Your task to perform on an android device: Go to Reddit.com Image 0: 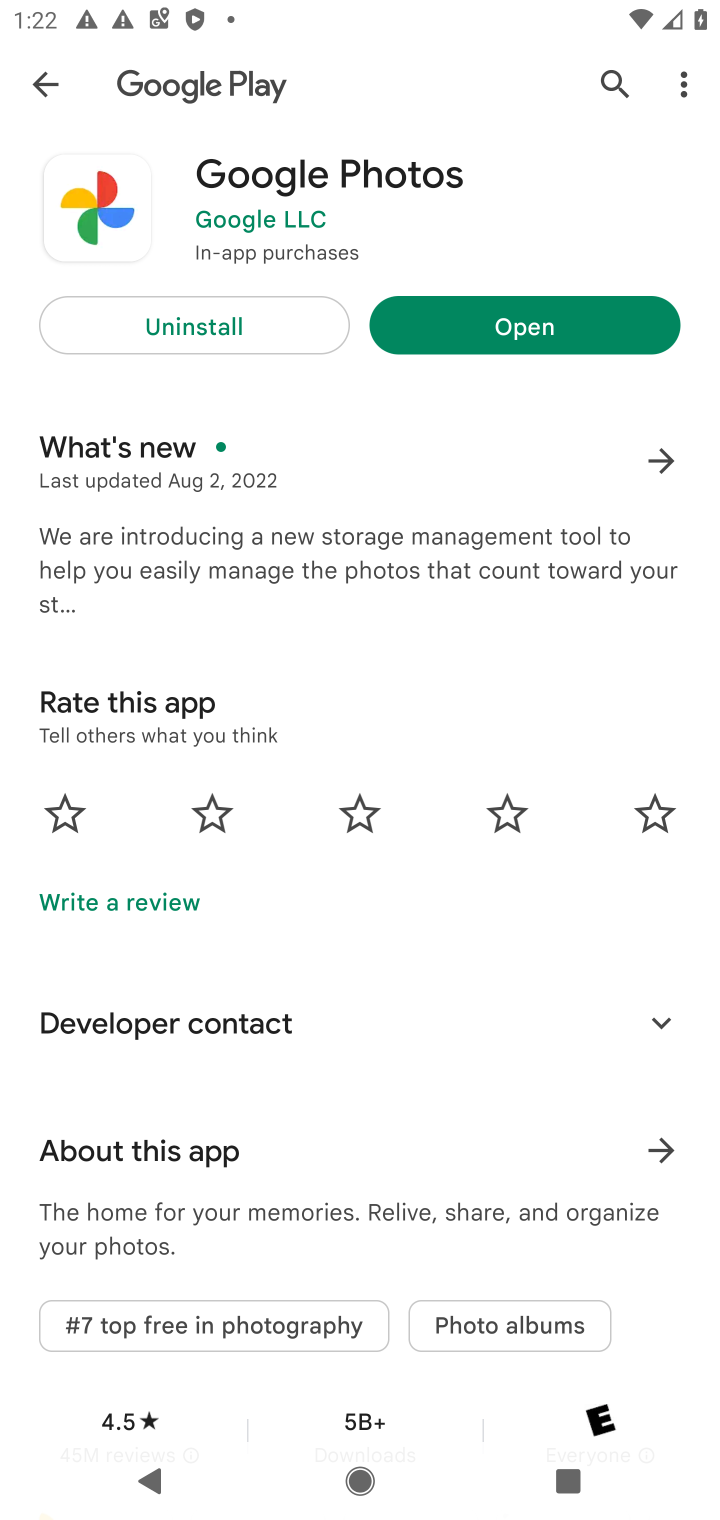
Step 0: press home button
Your task to perform on an android device: Go to Reddit.com Image 1: 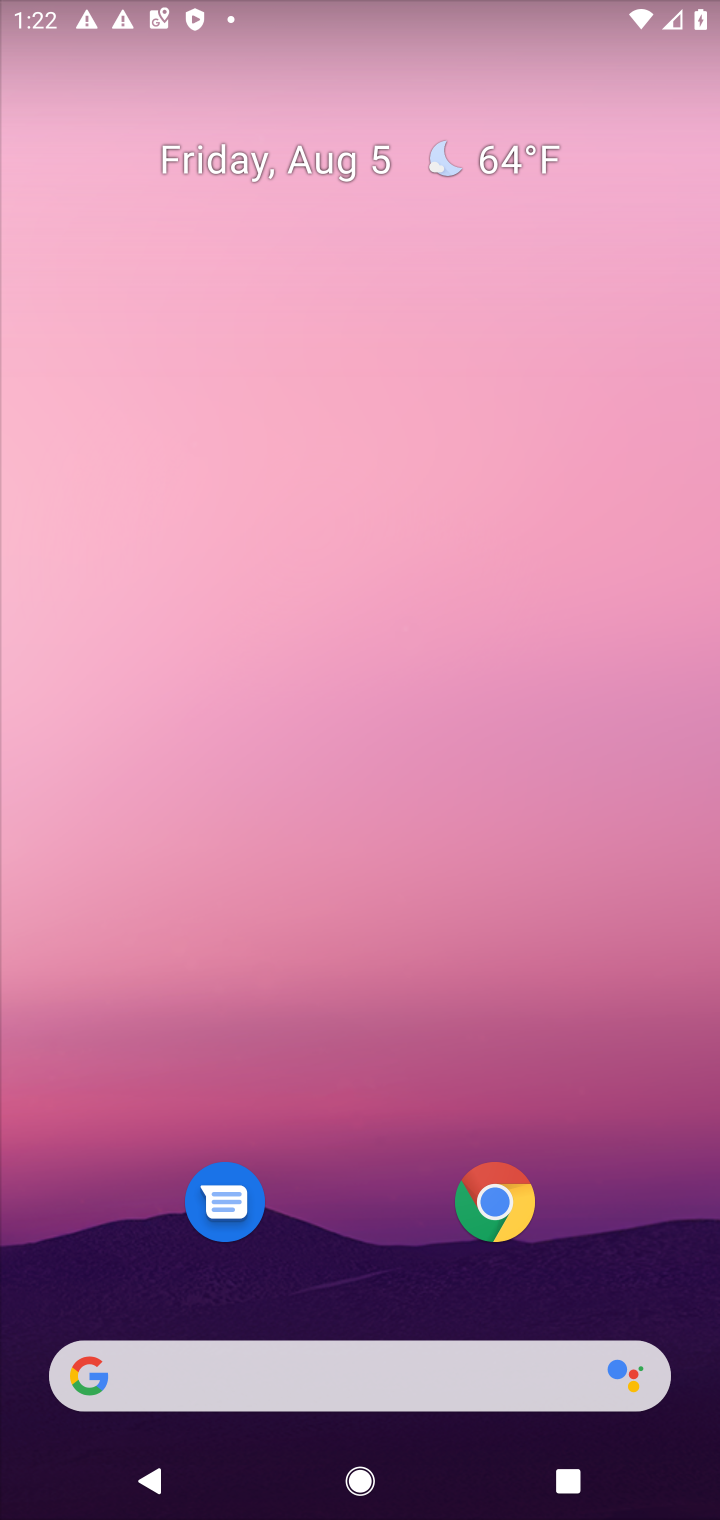
Step 1: drag from (578, 722) to (596, 161)
Your task to perform on an android device: Go to Reddit.com Image 2: 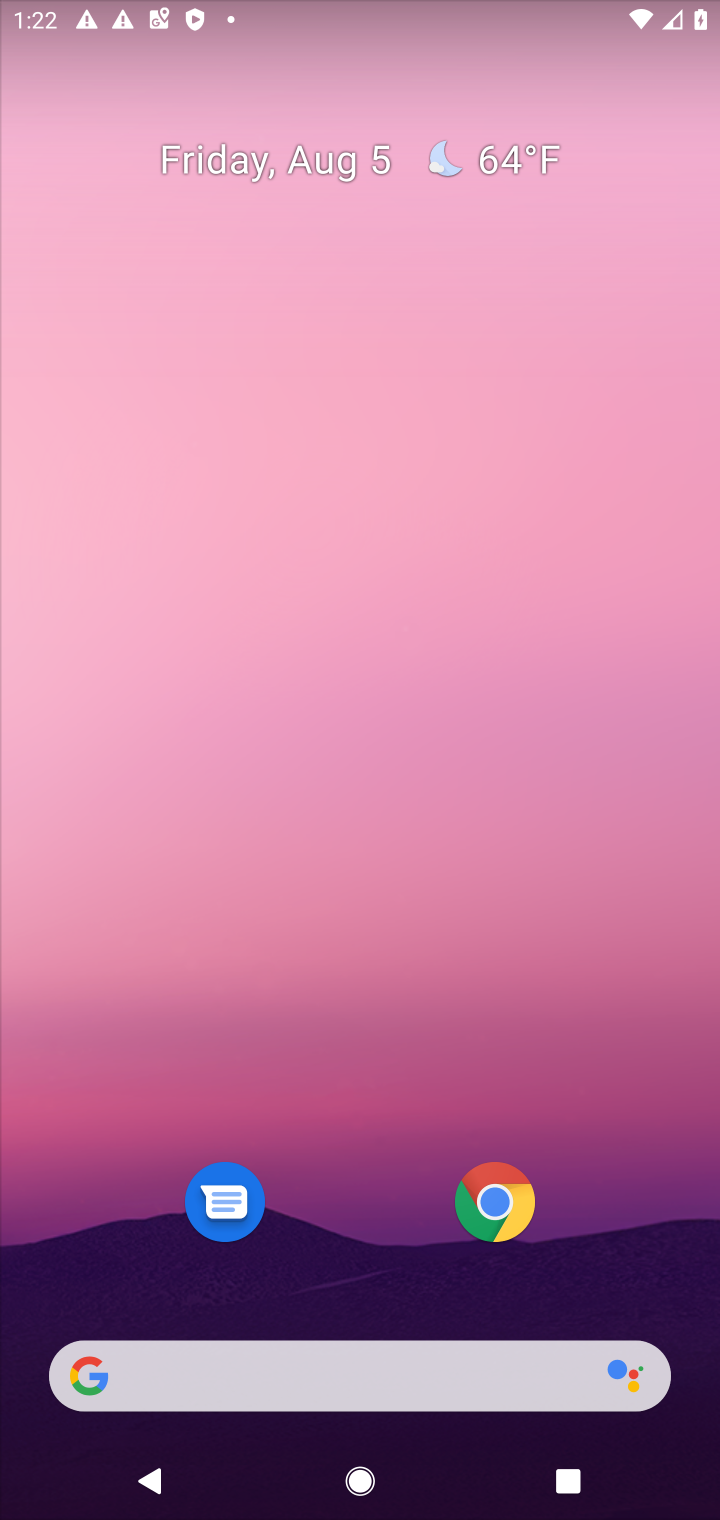
Step 2: drag from (378, 1253) to (452, 226)
Your task to perform on an android device: Go to Reddit.com Image 3: 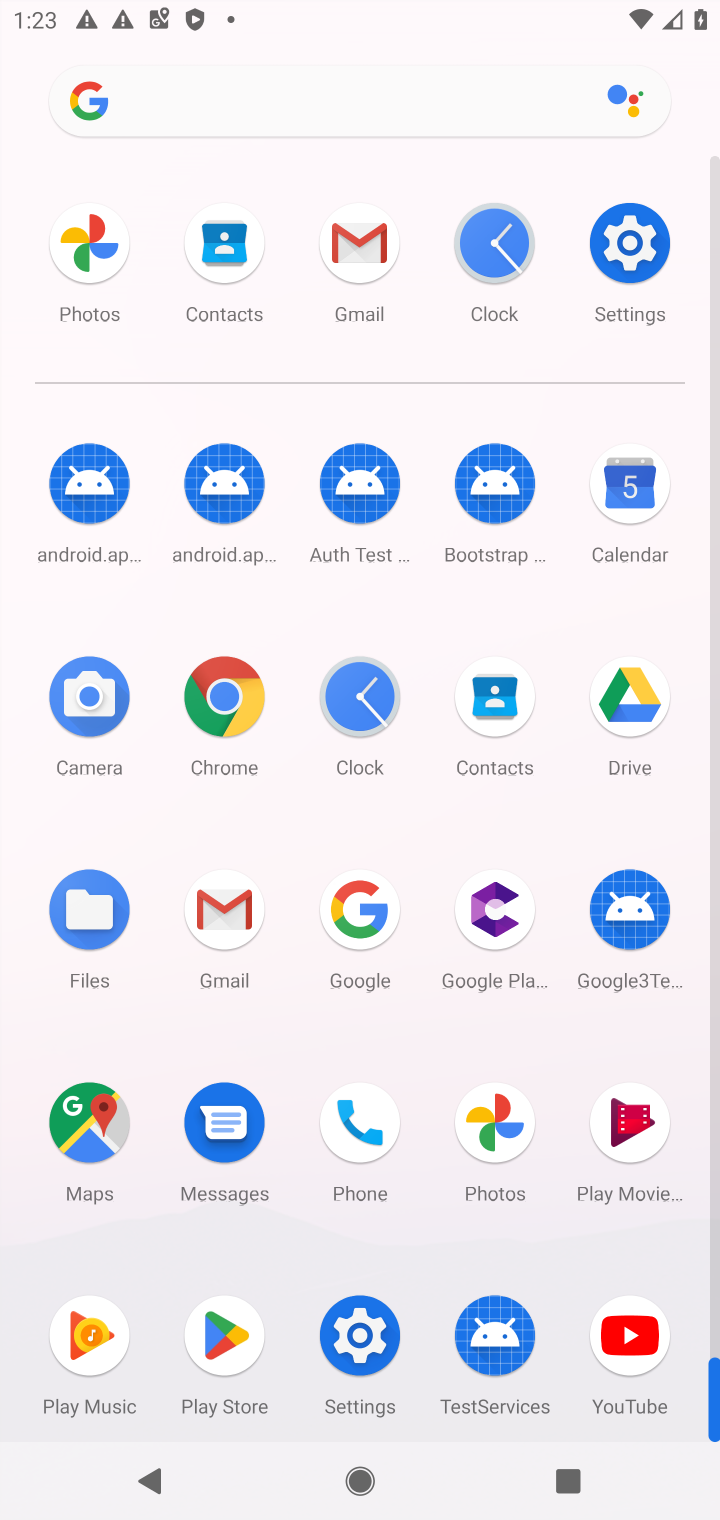
Step 3: click (230, 686)
Your task to perform on an android device: Go to Reddit.com Image 4: 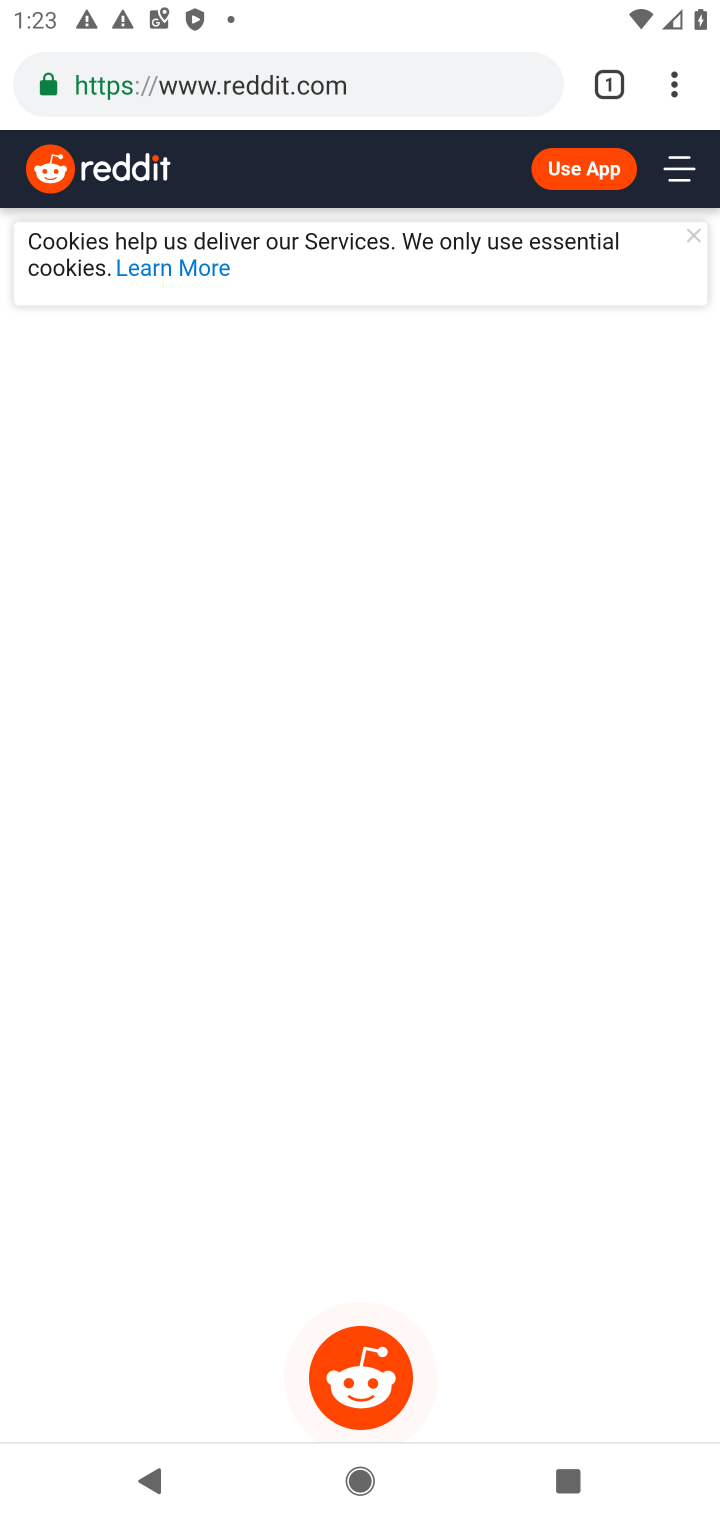
Step 4: task complete